Your task to perform on an android device: Go to Google maps Image 0: 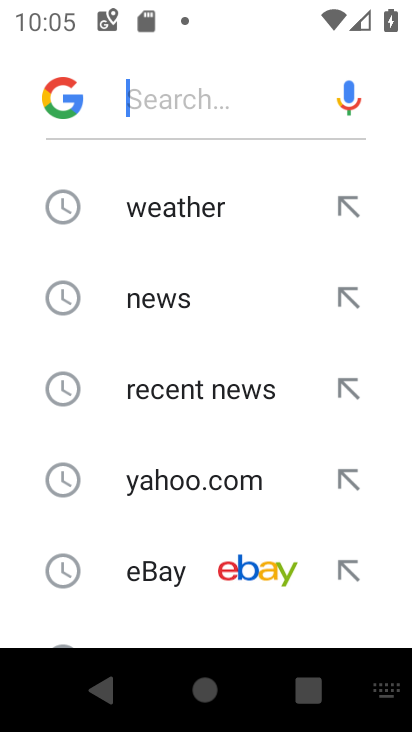
Step 0: press home button
Your task to perform on an android device: Go to Google maps Image 1: 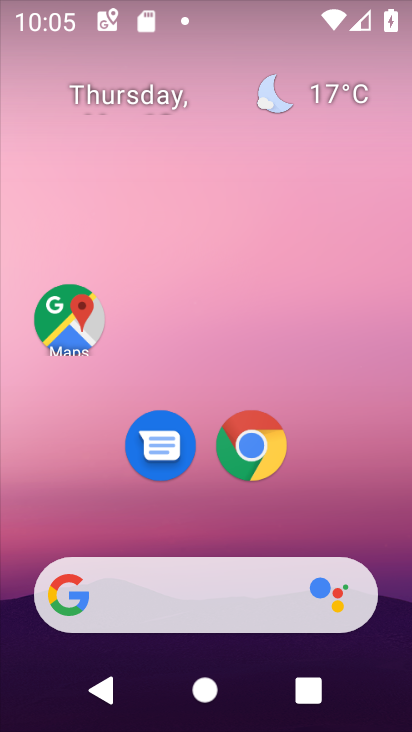
Step 1: drag from (307, 515) to (288, 208)
Your task to perform on an android device: Go to Google maps Image 2: 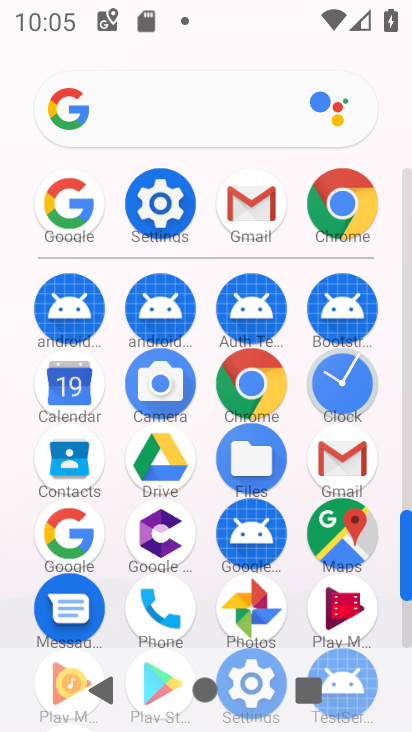
Step 2: click (365, 524)
Your task to perform on an android device: Go to Google maps Image 3: 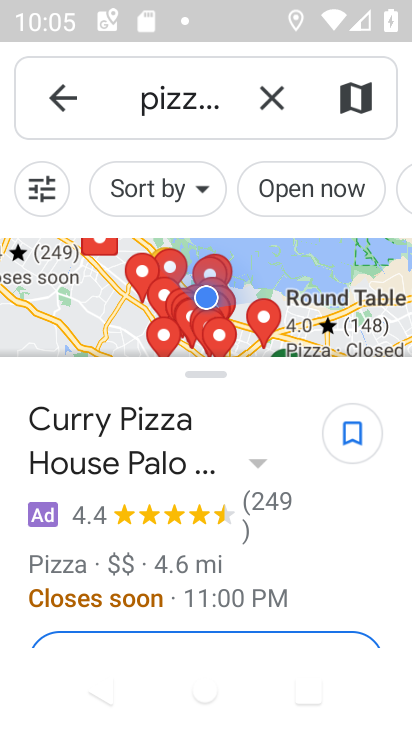
Step 3: task complete